Your task to perform on an android device: Go to display settings Image 0: 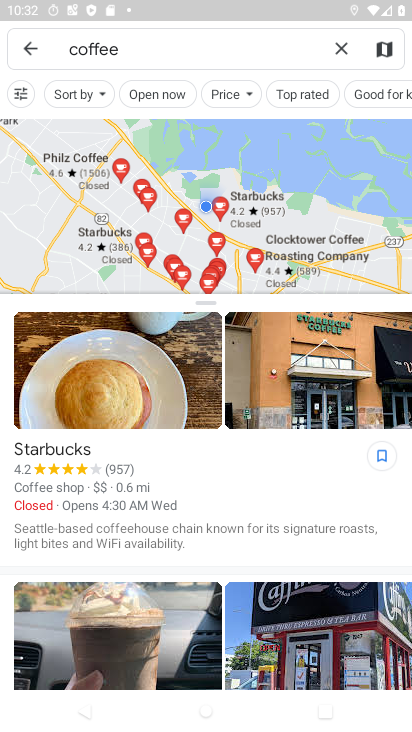
Step 0: press home button
Your task to perform on an android device: Go to display settings Image 1: 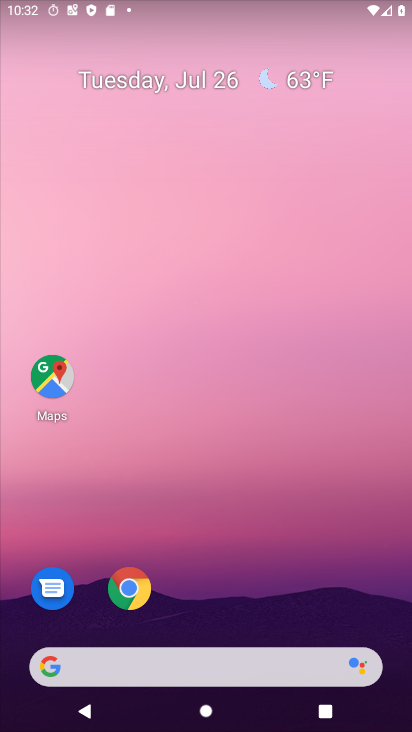
Step 1: drag from (216, 625) to (262, 174)
Your task to perform on an android device: Go to display settings Image 2: 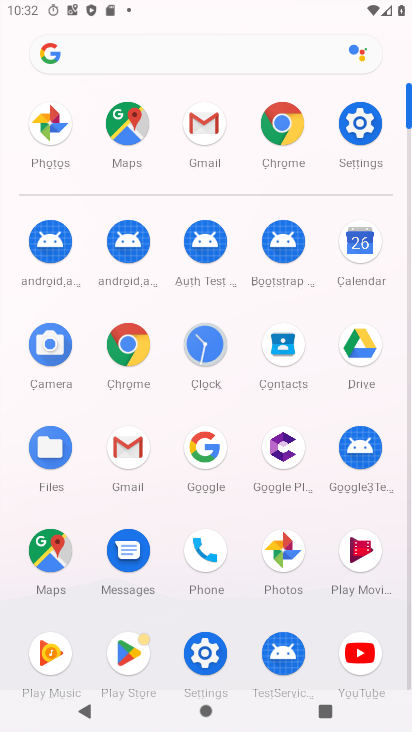
Step 2: click (351, 121)
Your task to perform on an android device: Go to display settings Image 3: 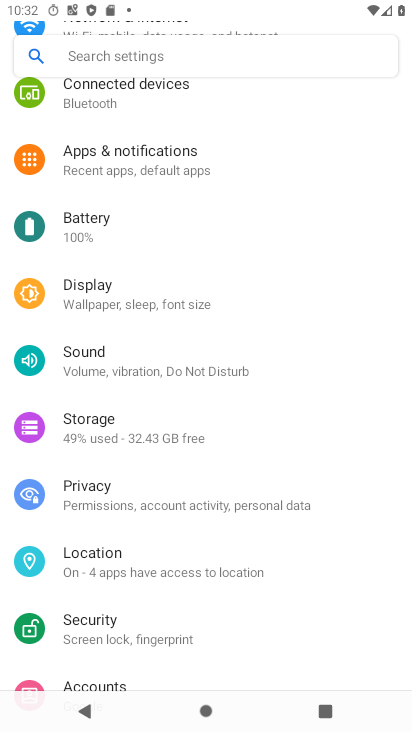
Step 3: click (107, 310)
Your task to perform on an android device: Go to display settings Image 4: 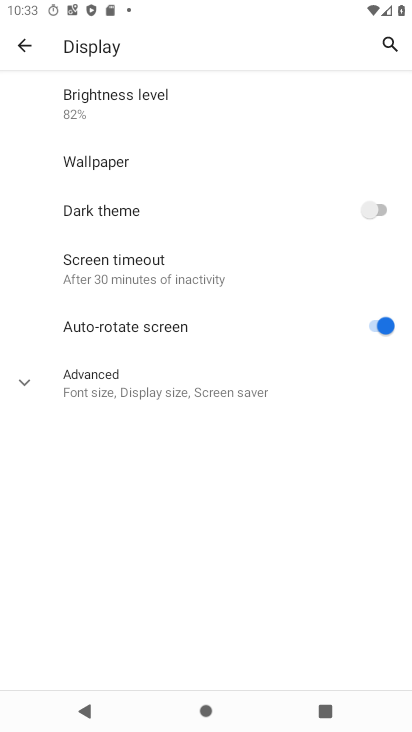
Step 4: task complete